Your task to perform on an android device: change the clock display to digital Image 0: 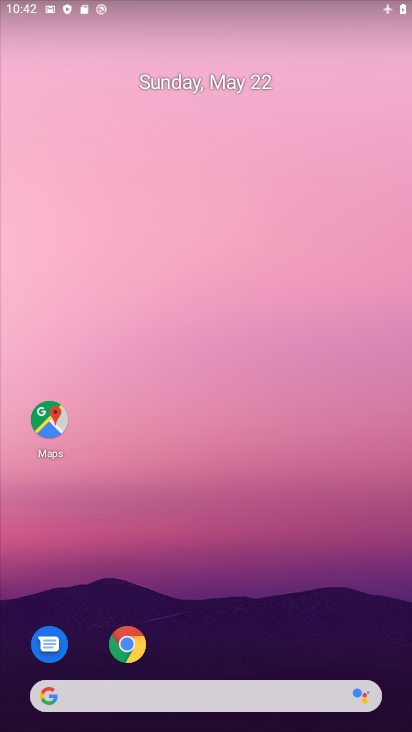
Step 0: press home button
Your task to perform on an android device: change the clock display to digital Image 1: 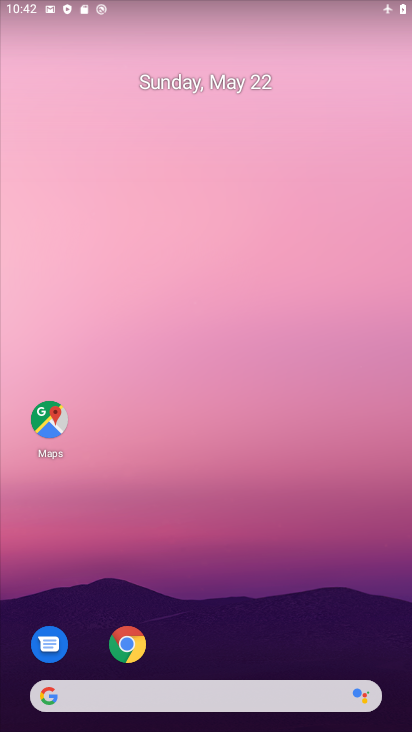
Step 1: drag from (217, 660) to (210, 71)
Your task to perform on an android device: change the clock display to digital Image 2: 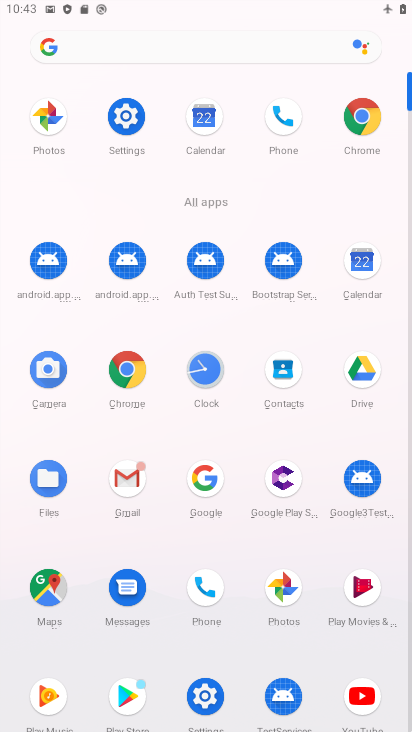
Step 2: click (202, 362)
Your task to perform on an android device: change the clock display to digital Image 3: 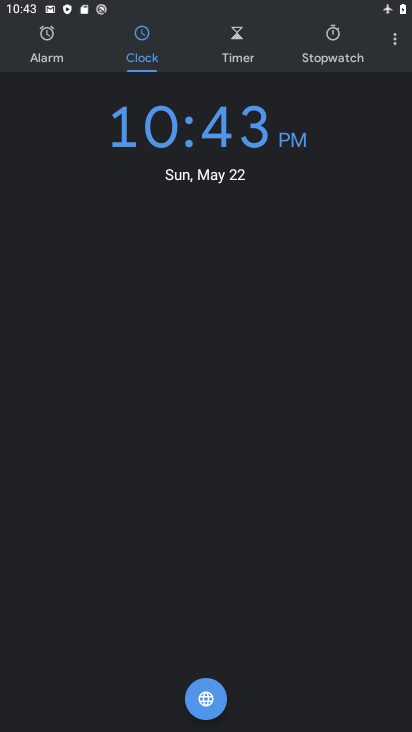
Step 3: click (388, 39)
Your task to perform on an android device: change the clock display to digital Image 4: 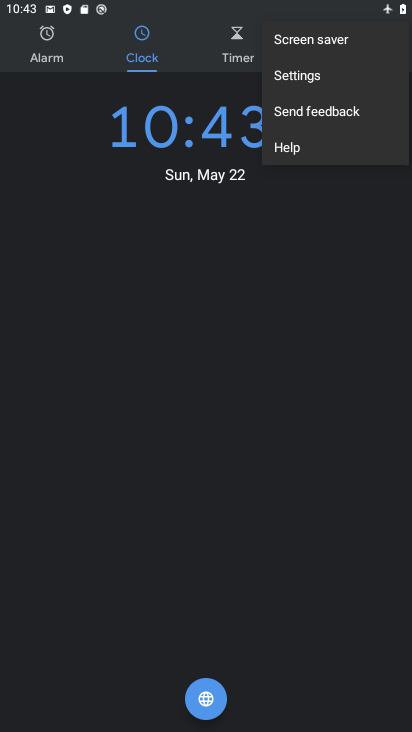
Step 4: click (327, 72)
Your task to perform on an android device: change the clock display to digital Image 5: 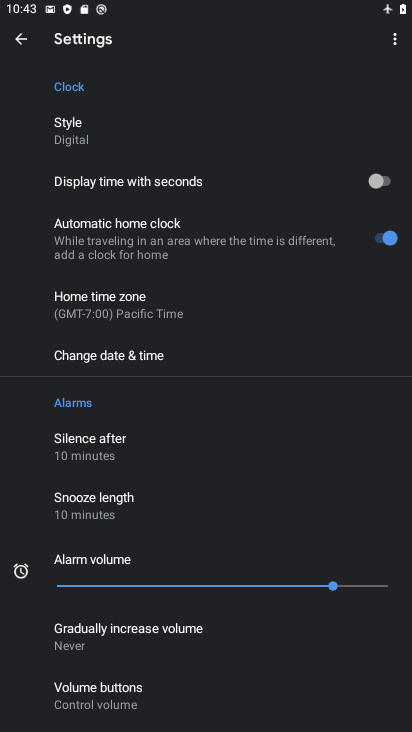
Step 5: click (132, 126)
Your task to perform on an android device: change the clock display to digital Image 6: 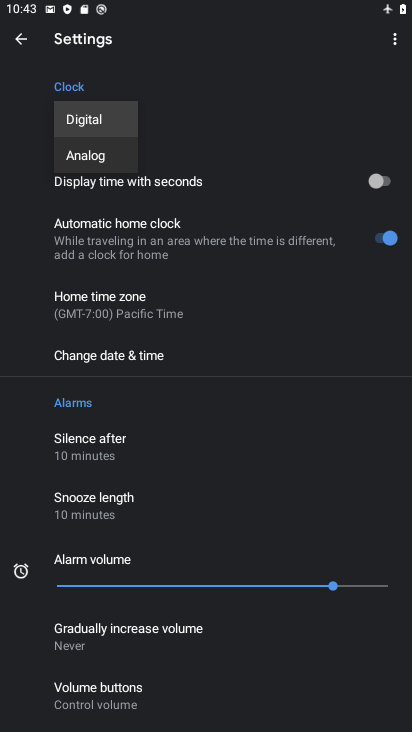
Step 6: click (113, 118)
Your task to perform on an android device: change the clock display to digital Image 7: 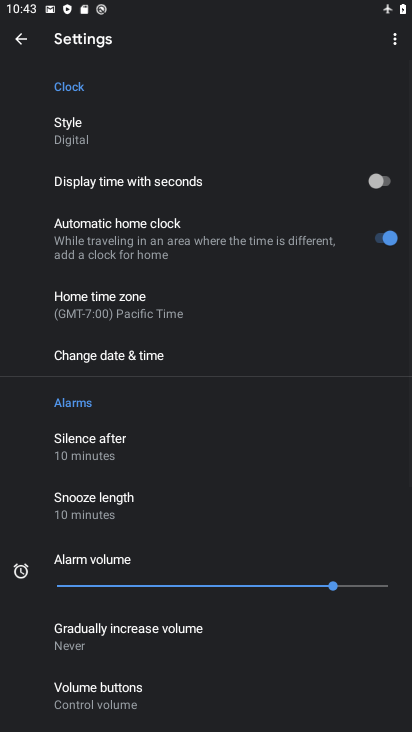
Step 7: task complete